Your task to perform on an android device: uninstall "Mercado Libre" Image 0: 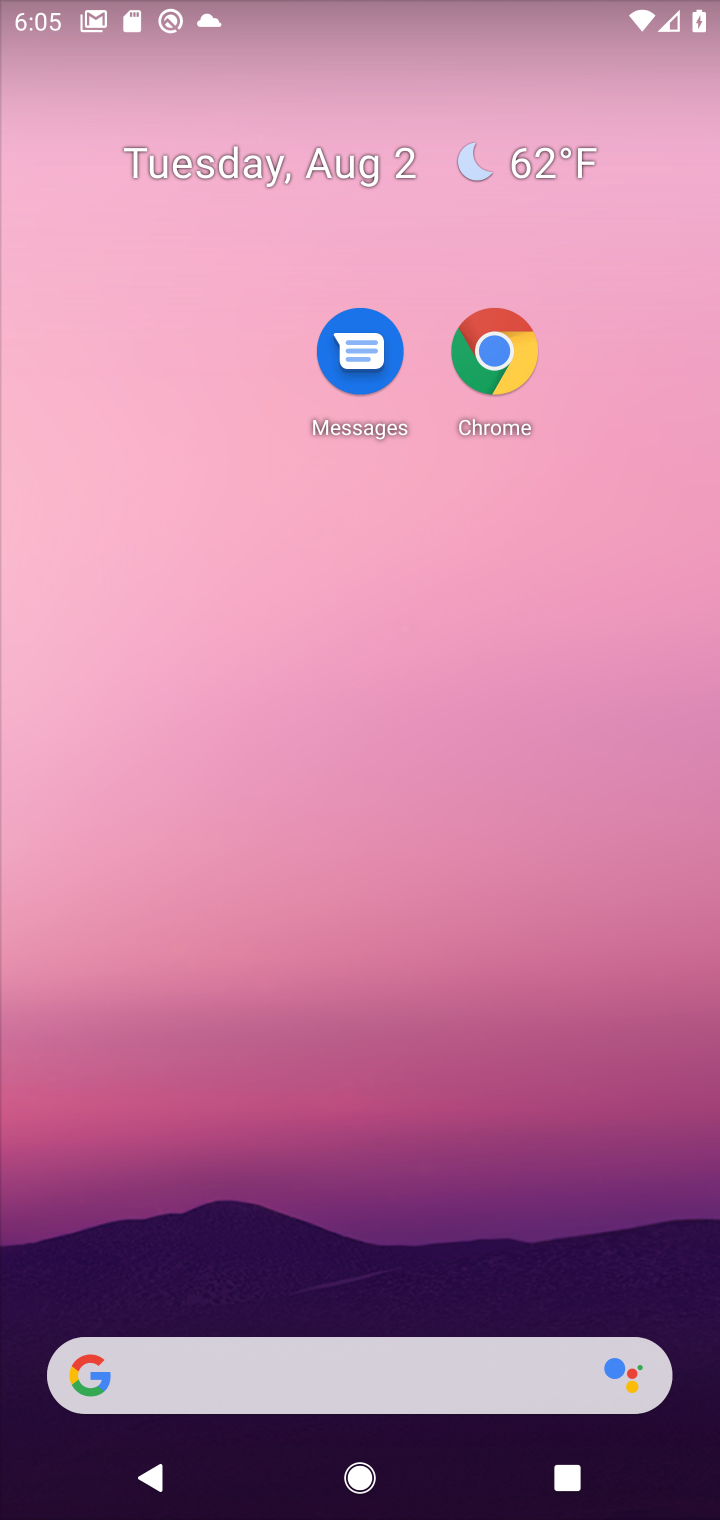
Step 0: drag from (269, 1279) to (331, 75)
Your task to perform on an android device: uninstall "Mercado Libre" Image 1: 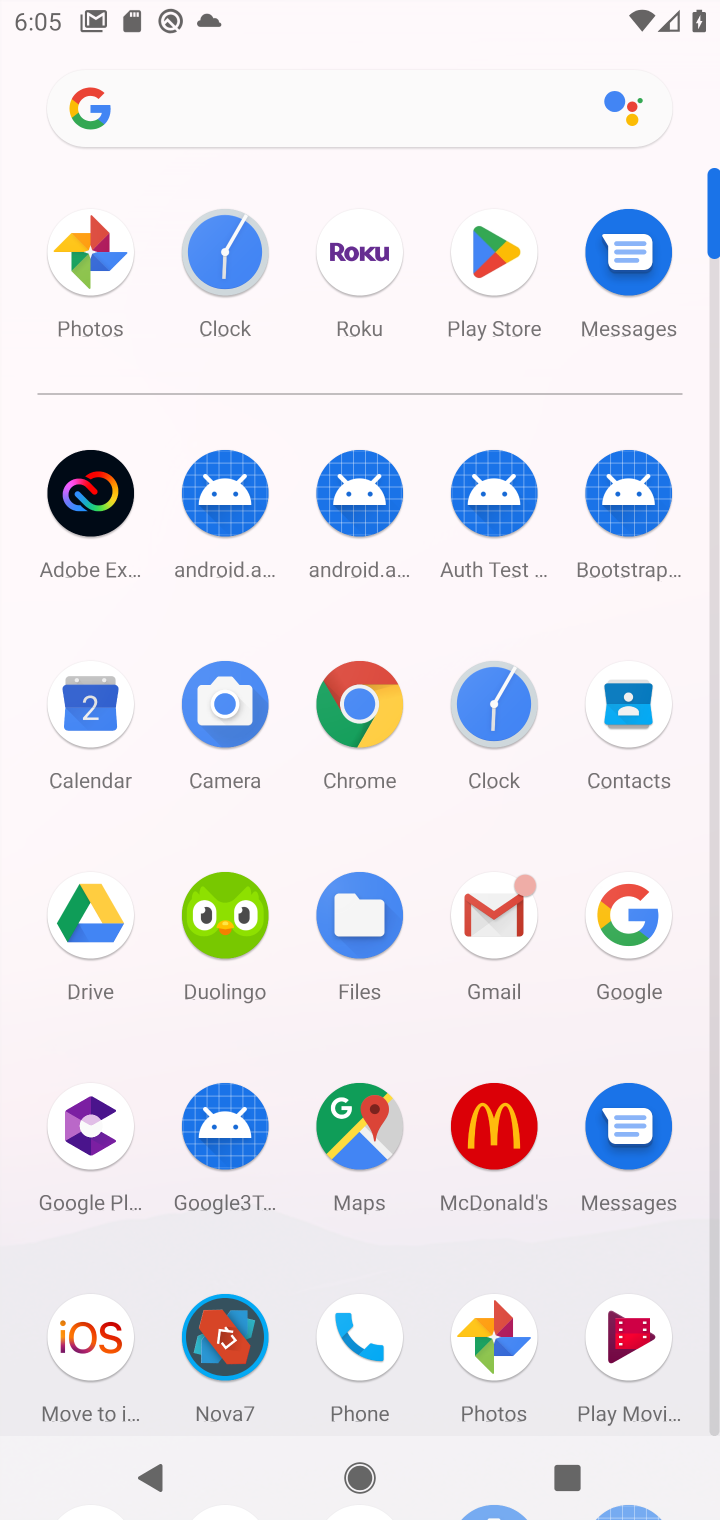
Step 1: click (491, 255)
Your task to perform on an android device: uninstall "Mercado Libre" Image 2: 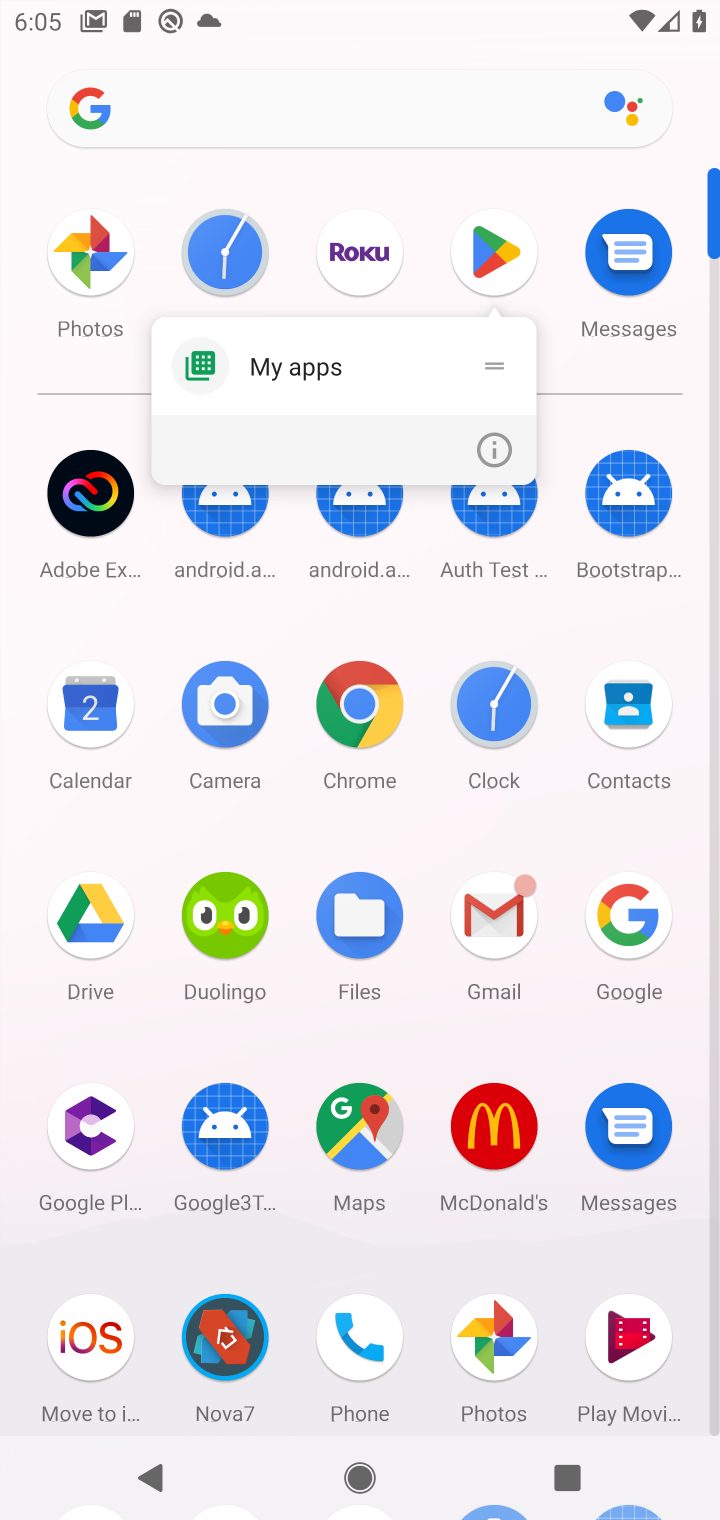
Step 2: click (521, 442)
Your task to perform on an android device: uninstall "Mercado Libre" Image 3: 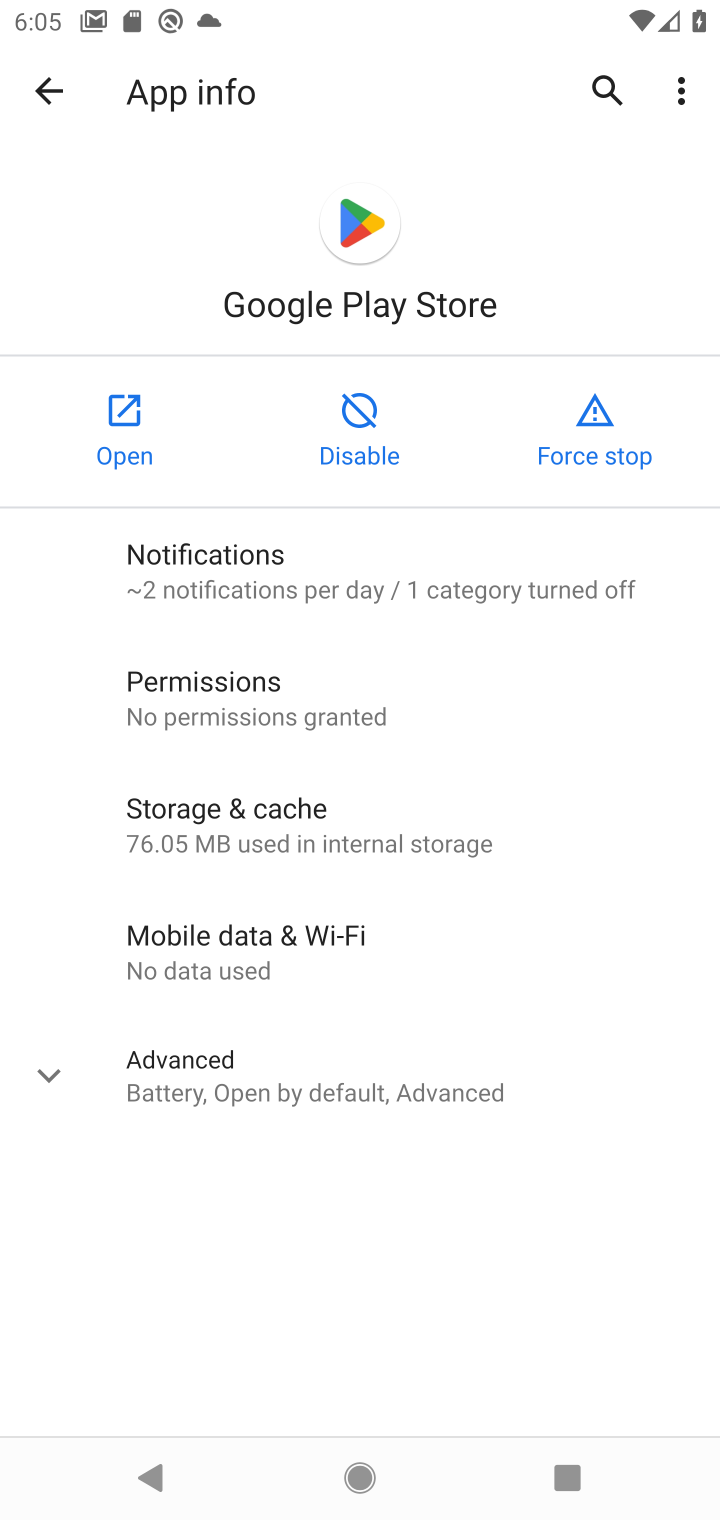
Step 3: click (128, 415)
Your task to perform on an android device: uninstall "Mercado Libre" Image 4: 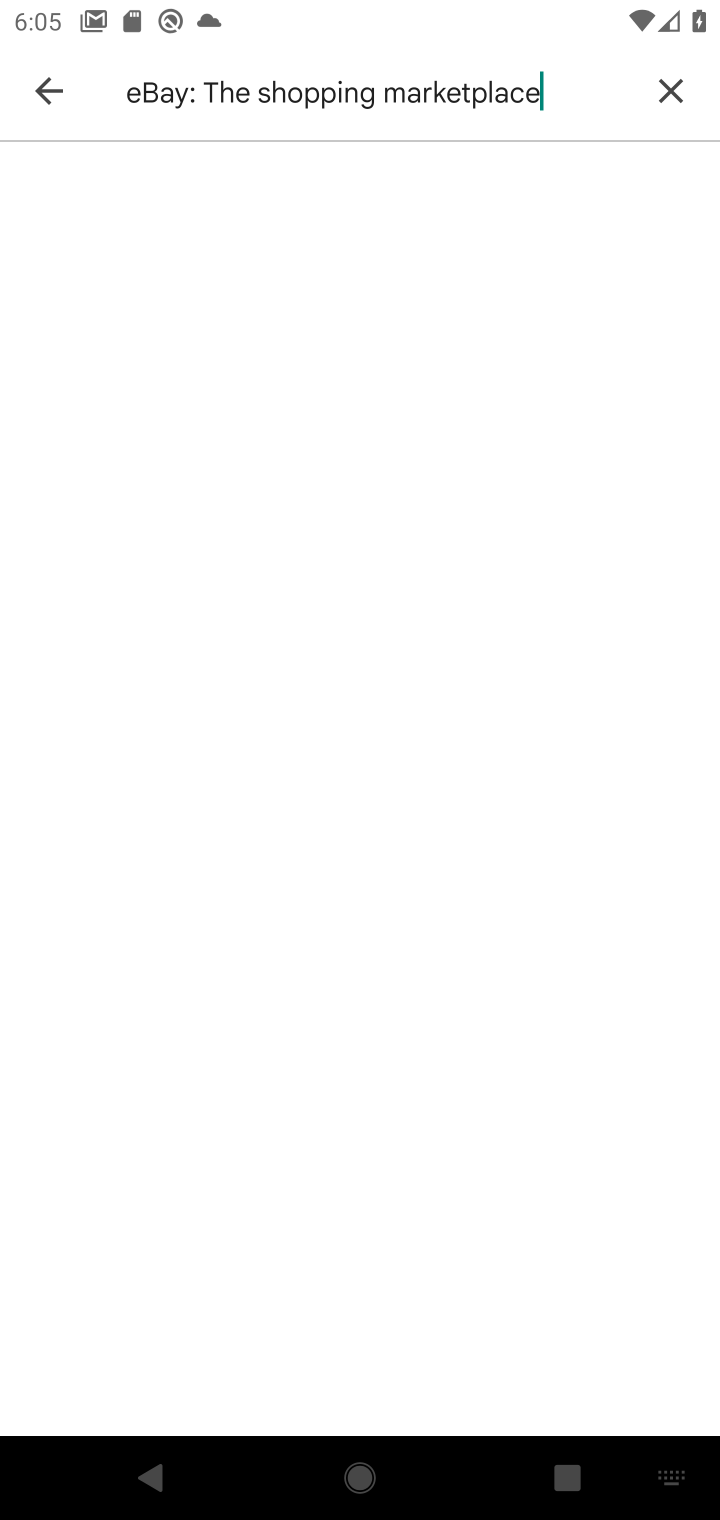
Step 4: click (682, 92)
Your task to perform on an android device: uninstall "Mercado Libre" Image 5: 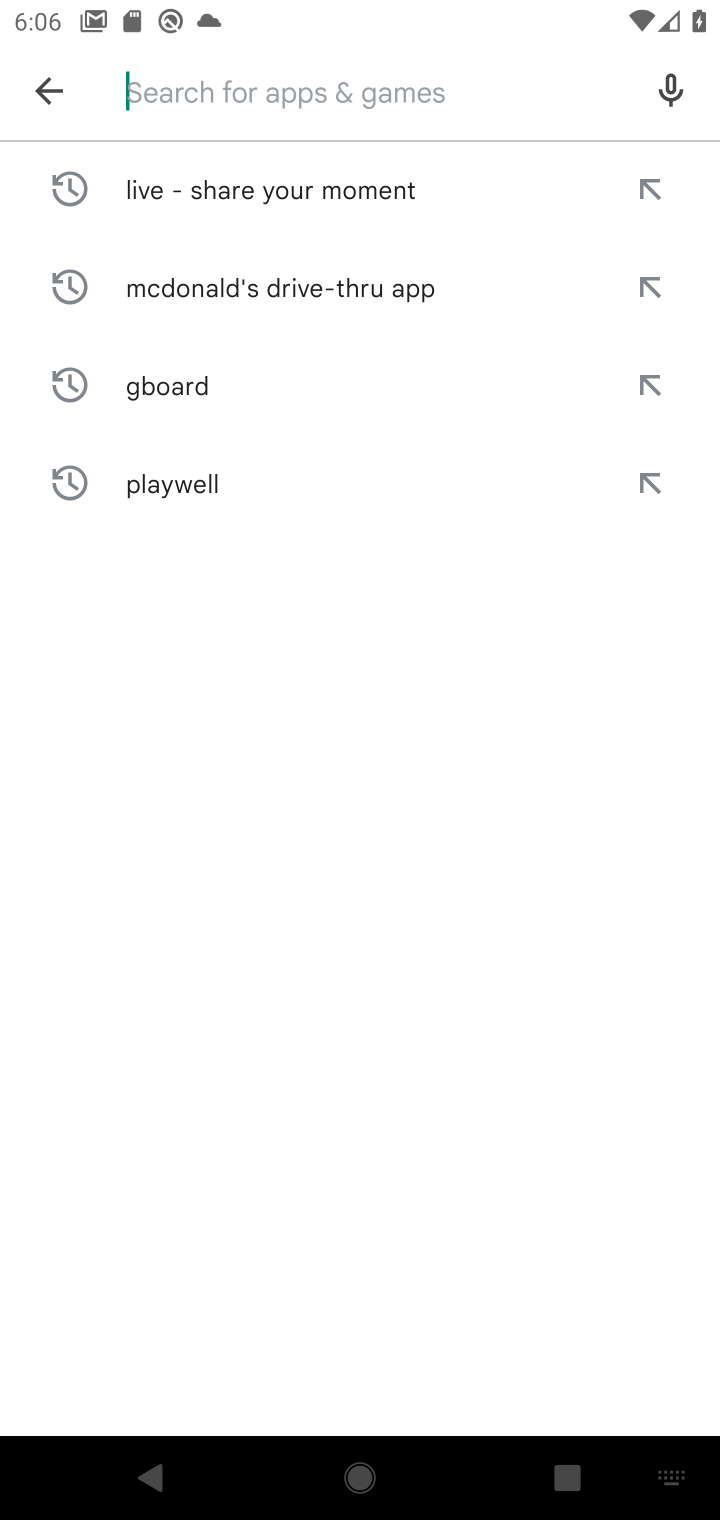
Step 5: type "Mercado Libre"
Your task to perform on an android device: uninstall "Mercado Libre" Image 6: 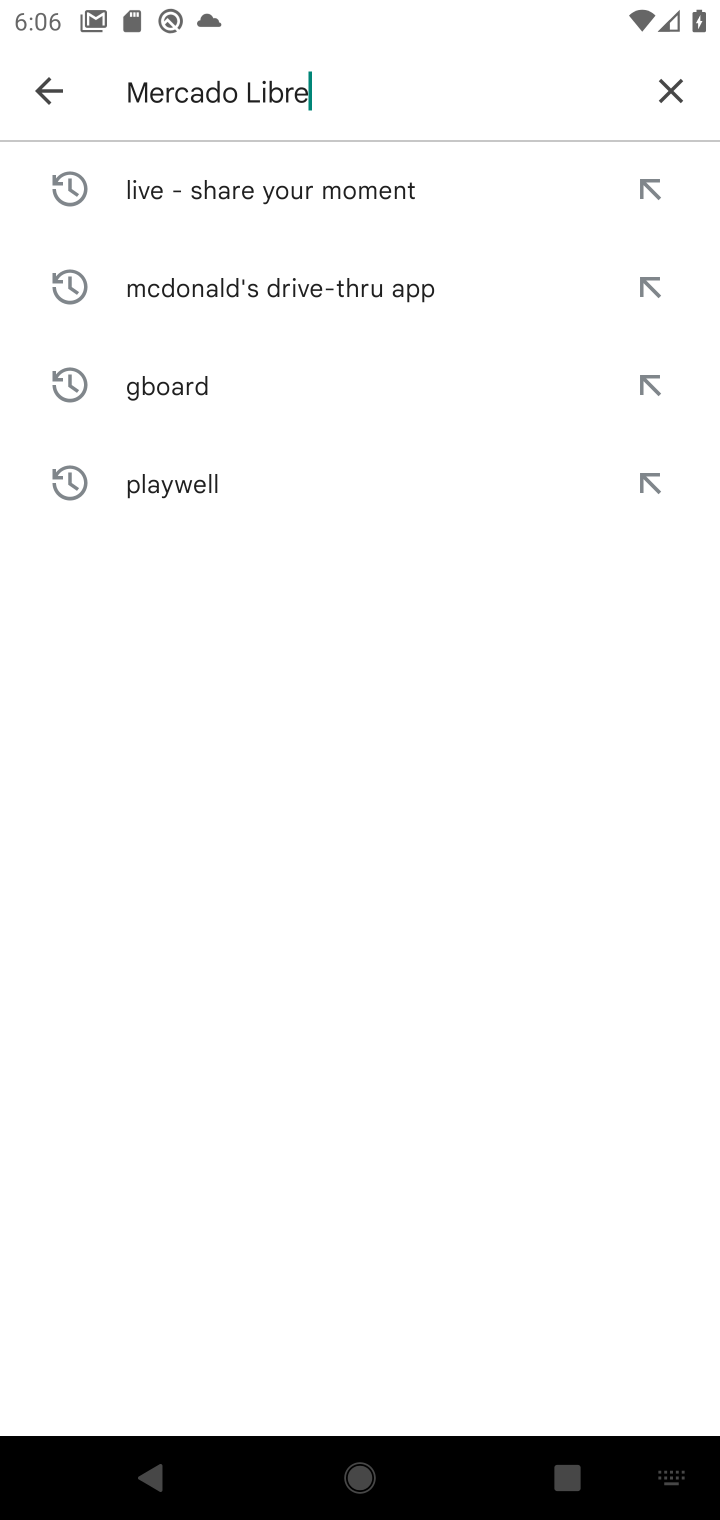
Step 6: type ""
Your task to perform on an android device: uninstall "Mercado Libre" Image 7: 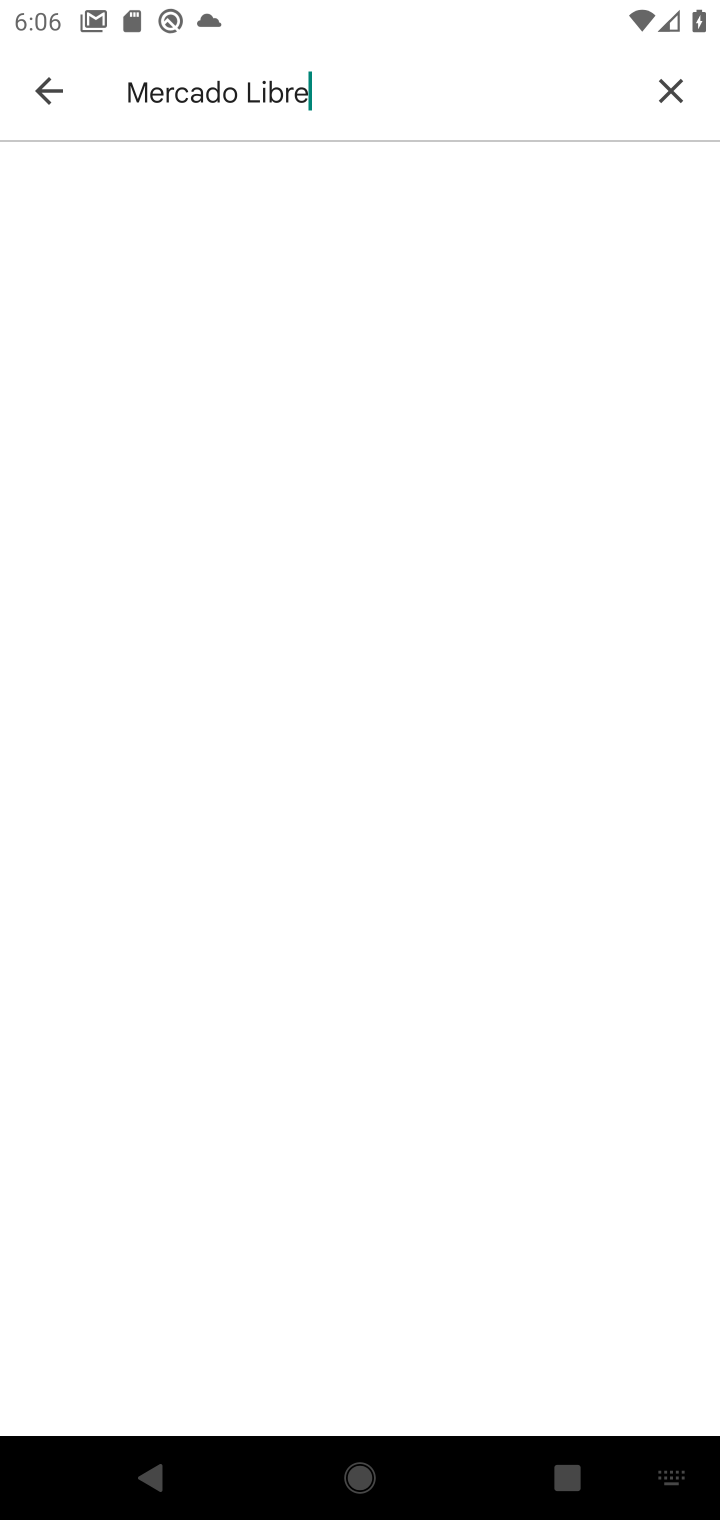
Step 7: drag from (357, 237) to (233, 894)
Your task to perform on an android device: uninstall "Mercado Libre" Image 8: 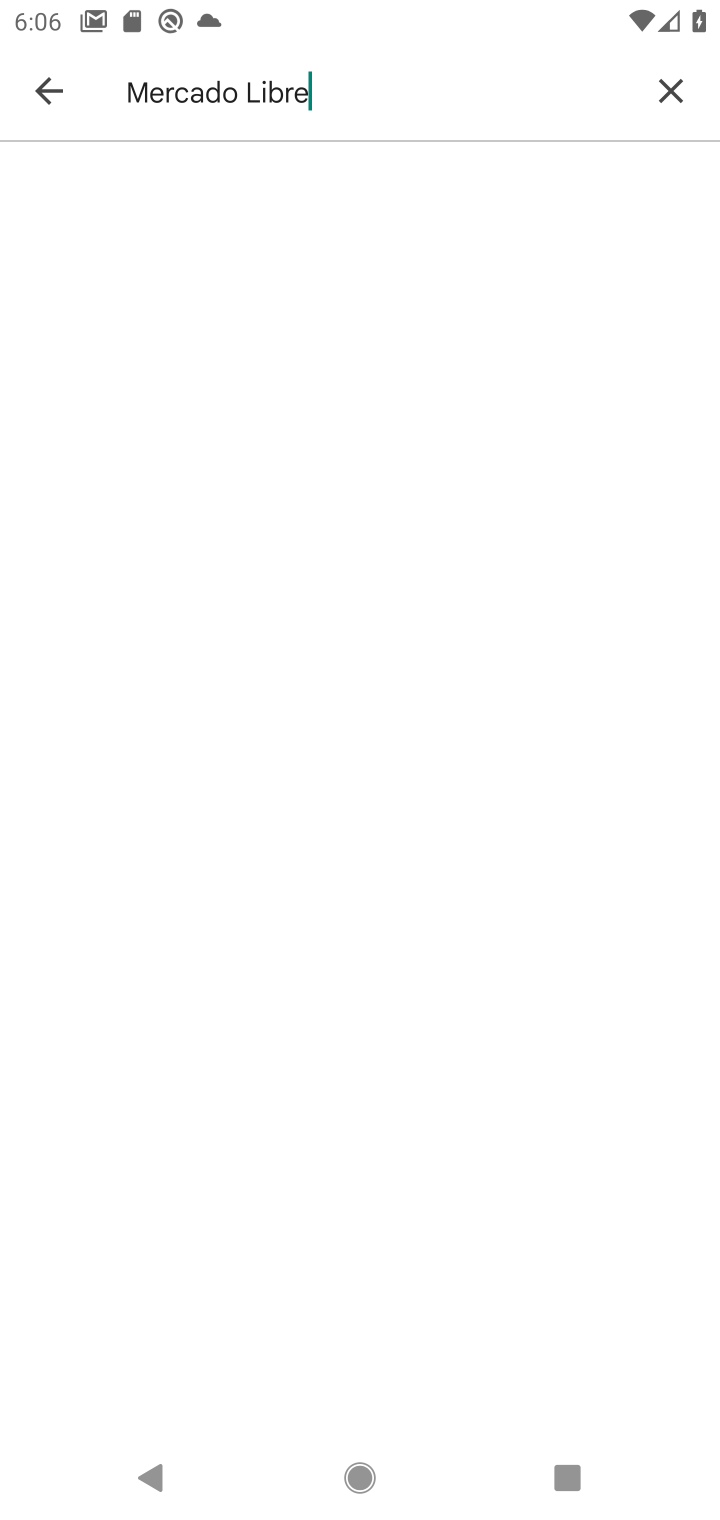
Step 8: drag from (431, 935) to (417, 24)
Your task to perform on an android device: uninstall "Mercado Libre" Image 9: 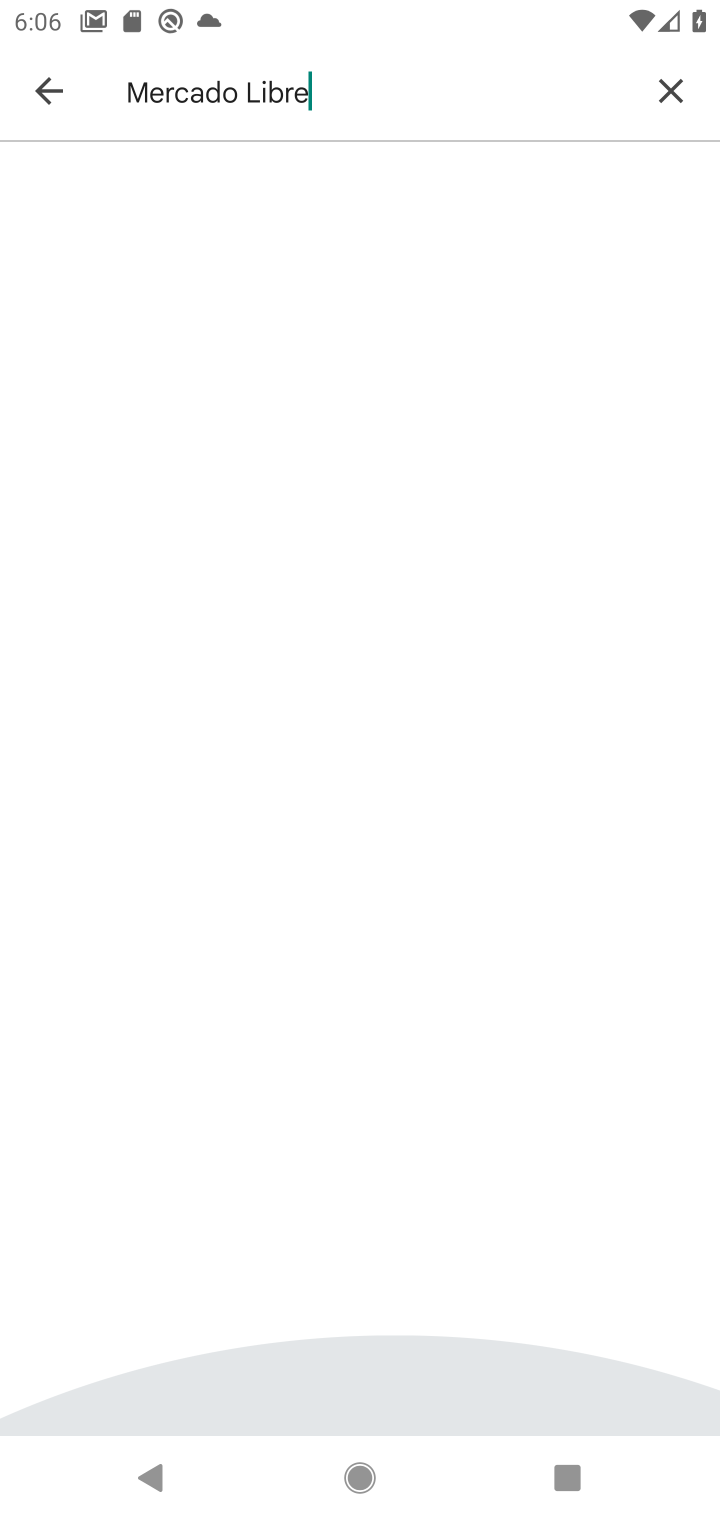
Step 9: drag from (335, 172) to (417, 1222)
Your task to perform on an android device: uninstall "Mercado Libre" Image 10: 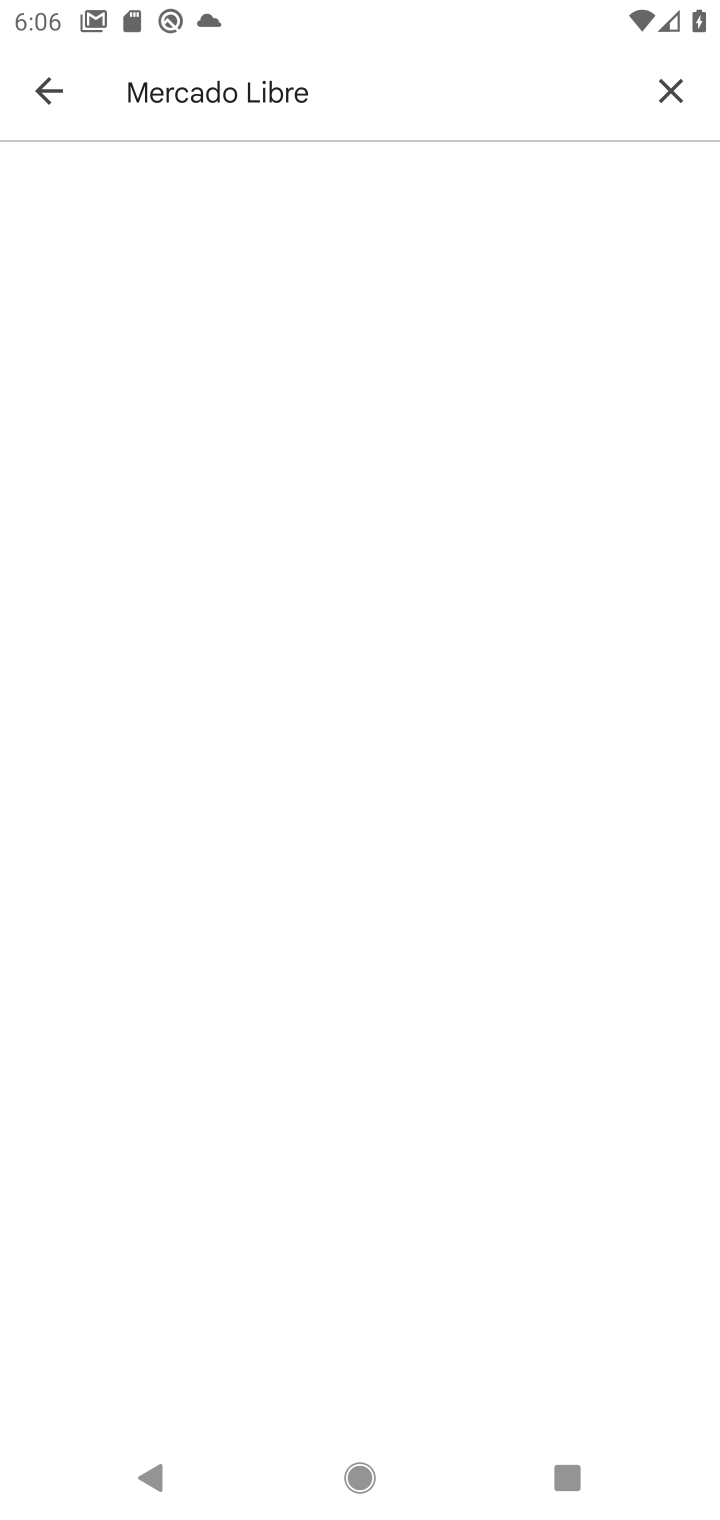
Step 10: drag from (424, 1080) to (509, 188)
Your task to perform on an android device: uninstall "Mercado Libre" Image 11: 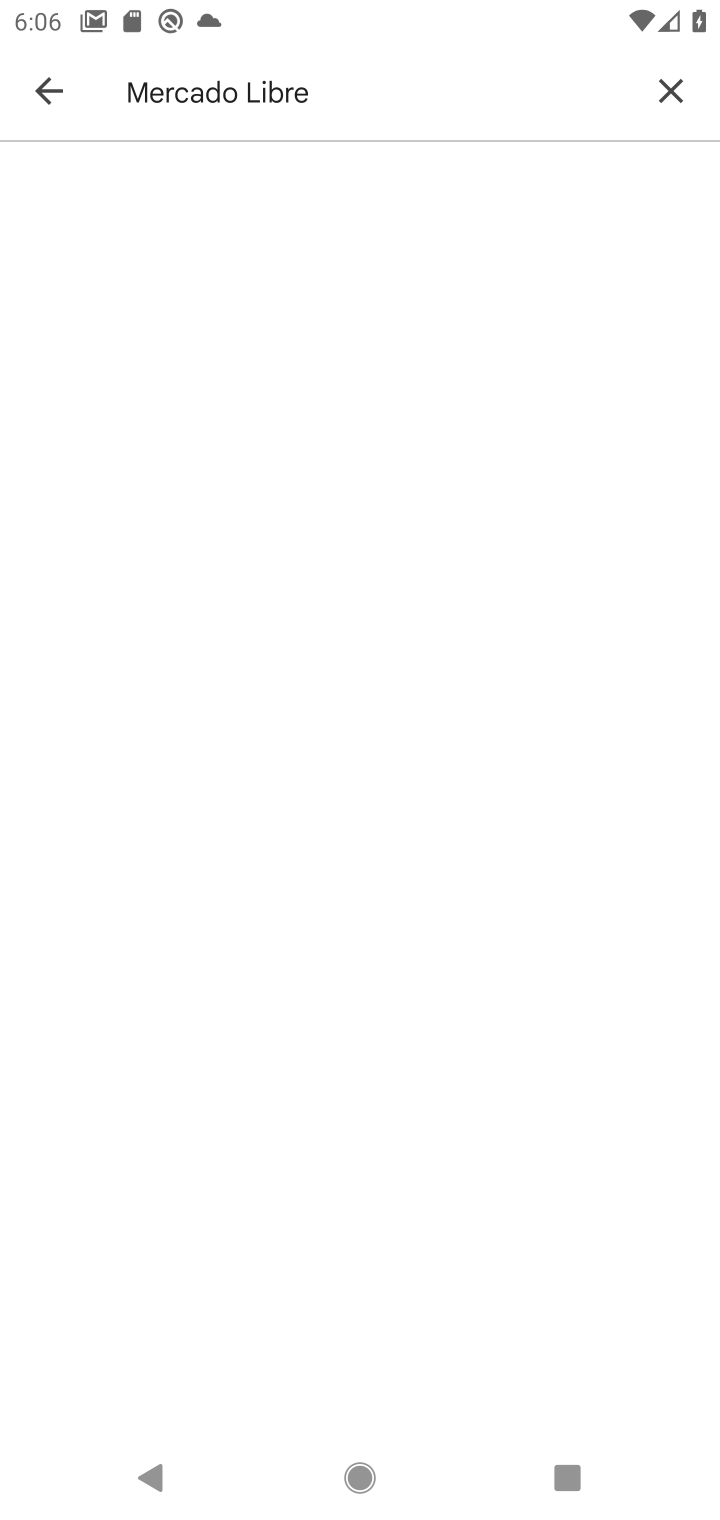
Step 11: drag from (366, 229) to (384, 1097)
Your task to perform on an android device: uninstall "Mercado Libre" Image 12: 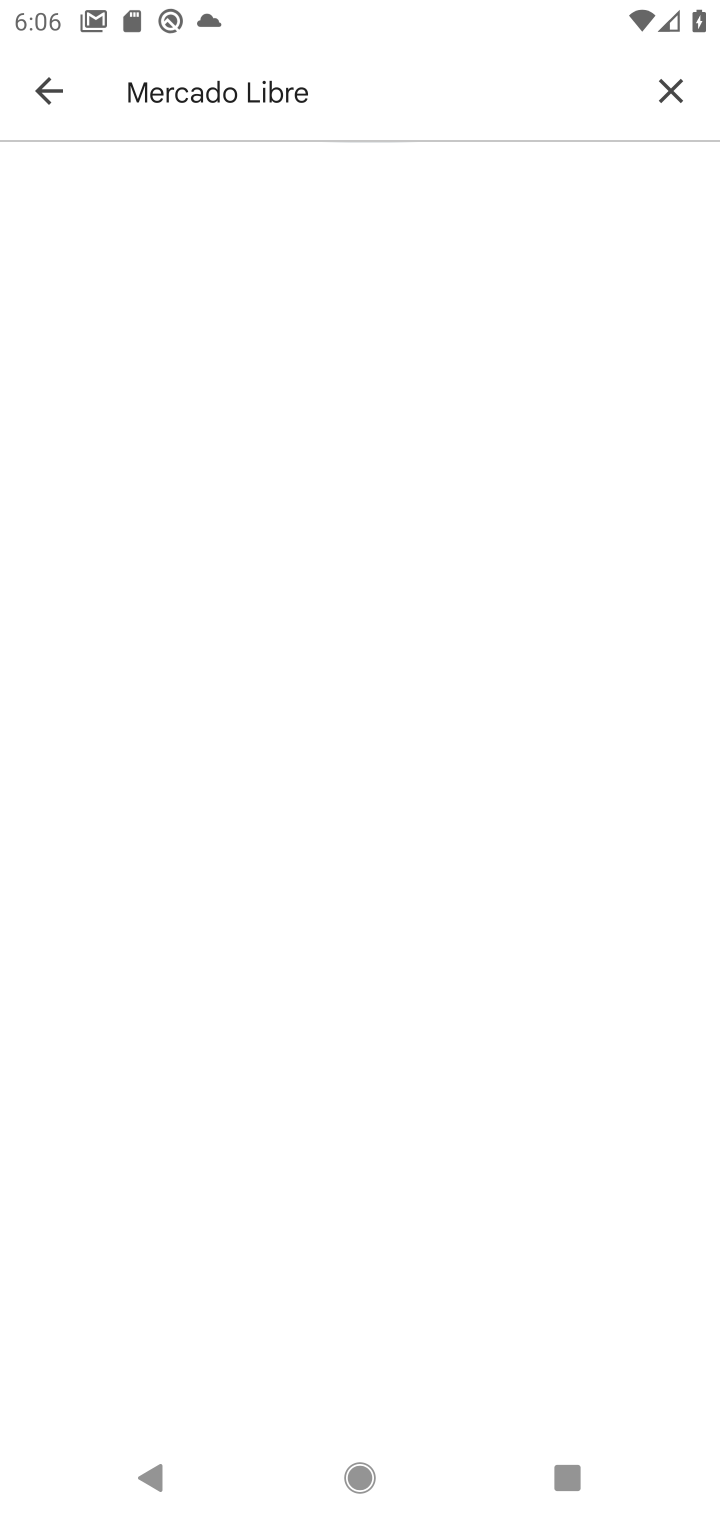
Step 12: drag from (372, 959) to (444, 348)
Your task to perform on an android device: uninstall "Mercado Libre" Image 13: 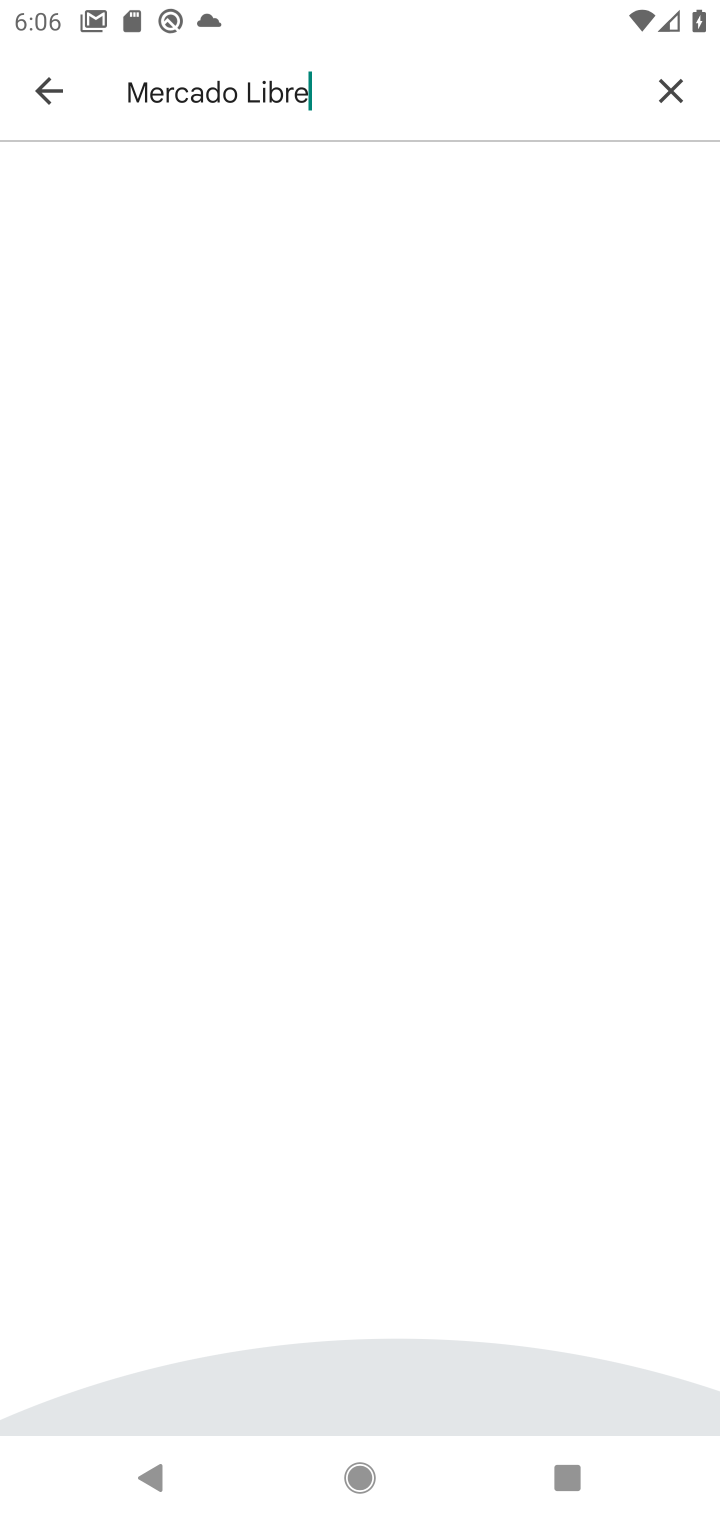
Step 13: drag from (425, 315) to (404, 910)
Your task to perform on an android device: uninstall "Mercado Libre" Image 14: 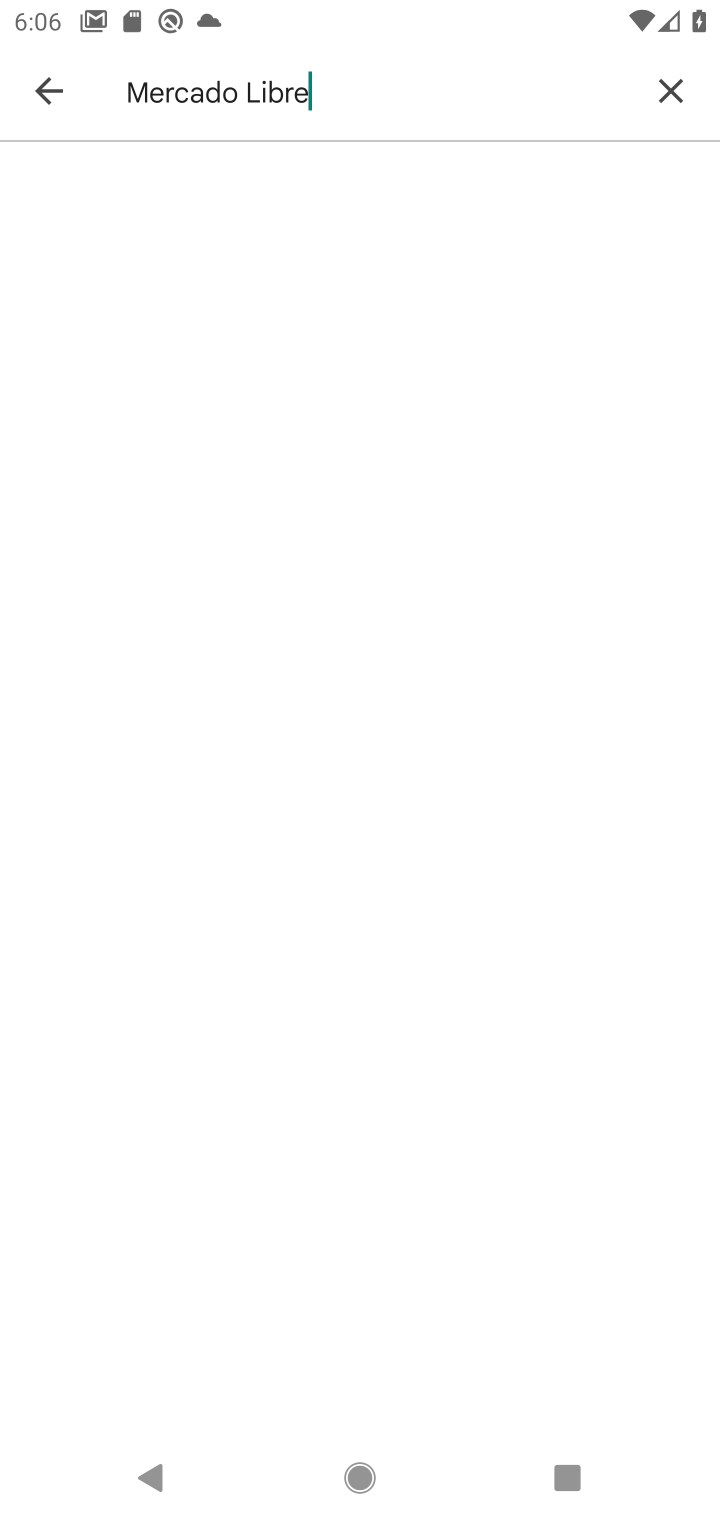
Step 14: drag from (453, 331) to (395, 956)
Your task to perform on an android device: uninstall "Mercado Libre" Image 15: 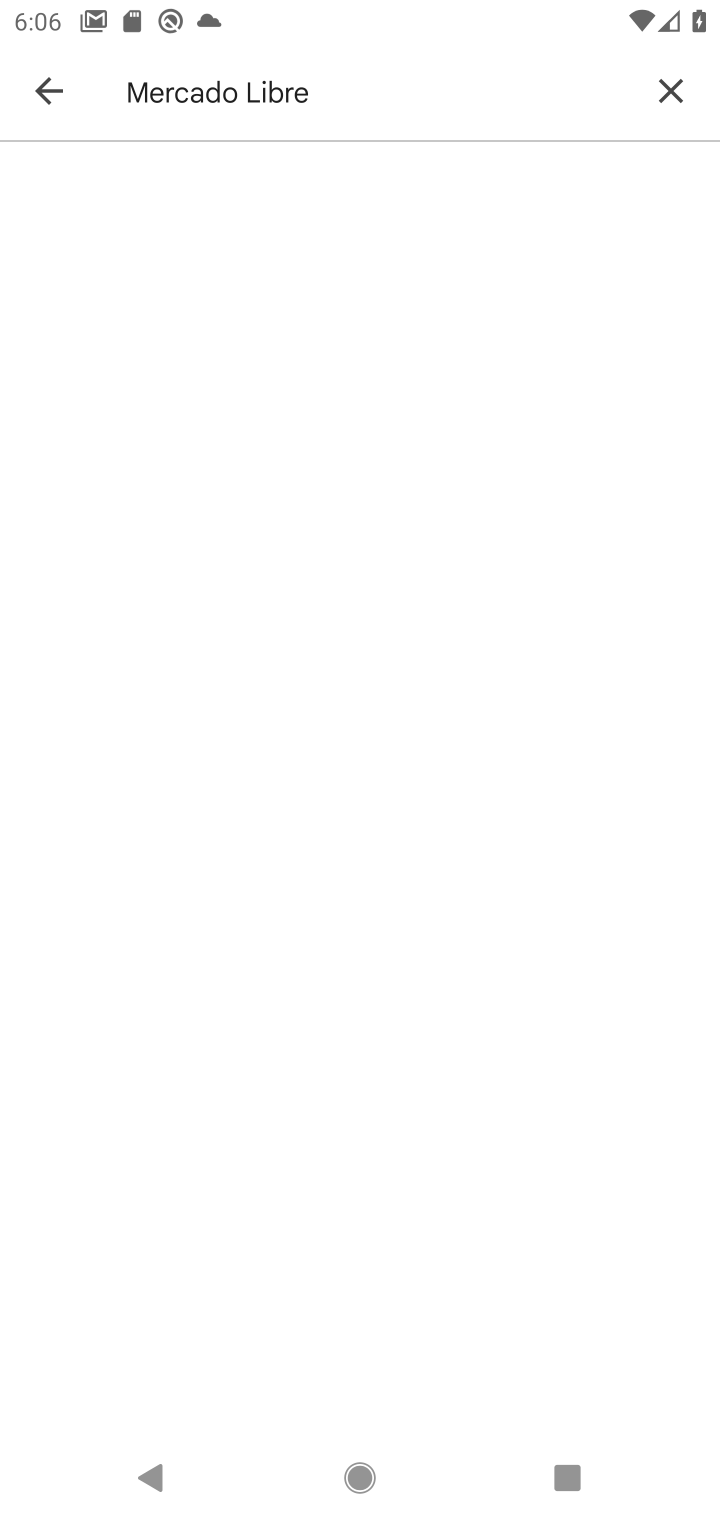
Step 15: drag from (204, 249) to (411, 956)
Your task to perform on an android device: uninstall "Mercado Libre" Image 16: 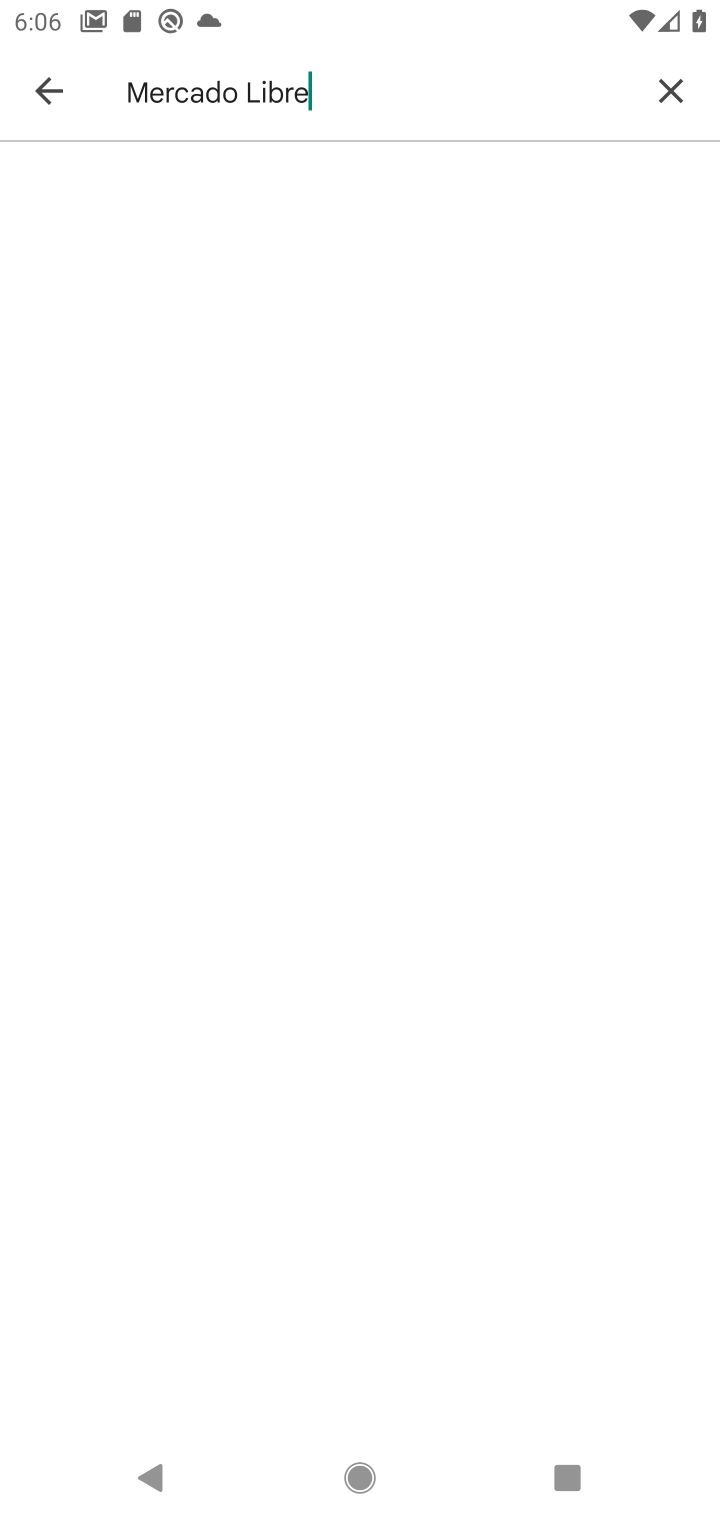
Step 16: click (310, 204)
Your task to perform on an android device: uninstall "Mercado Libre" Image 17: 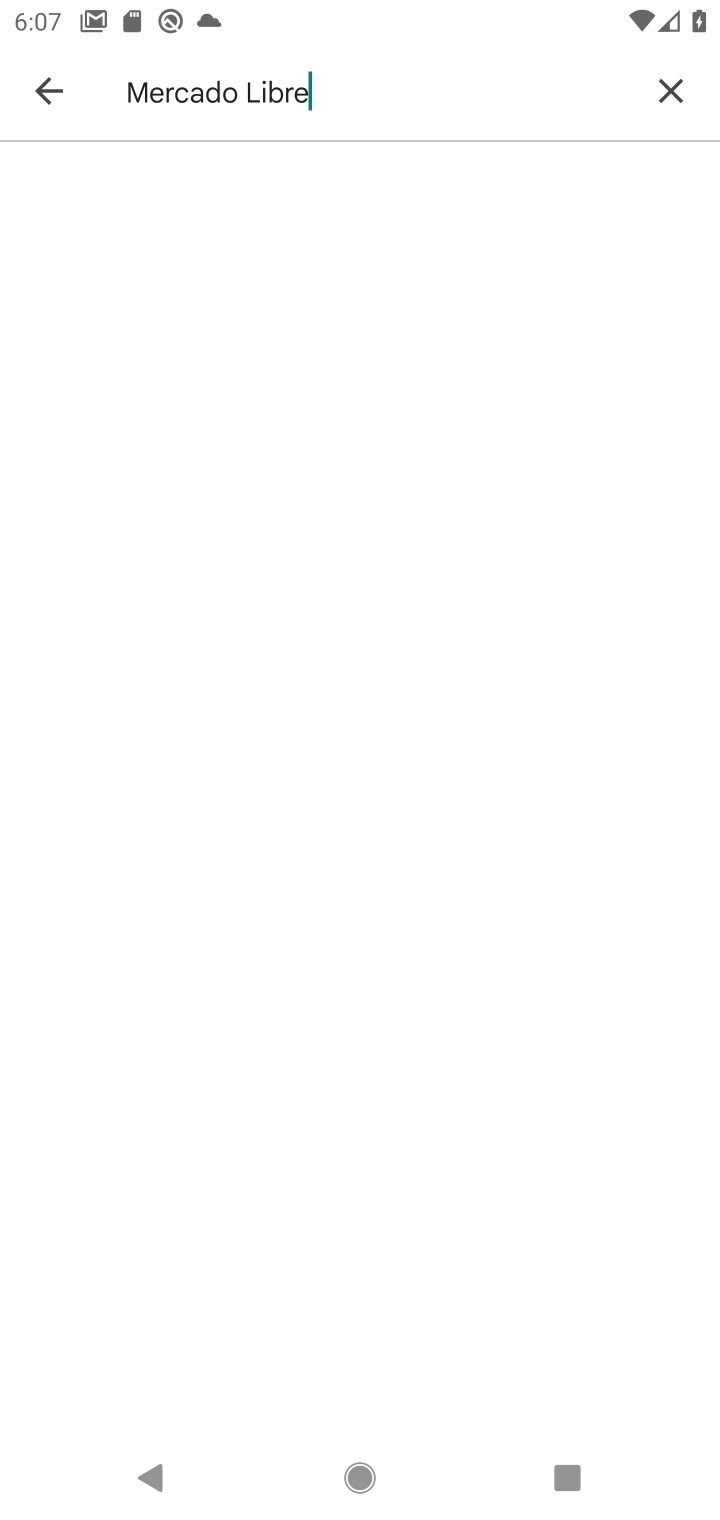
Step 17: task complete